Your task to perform on an android device: turn on data saver in the chrome app Image 0: 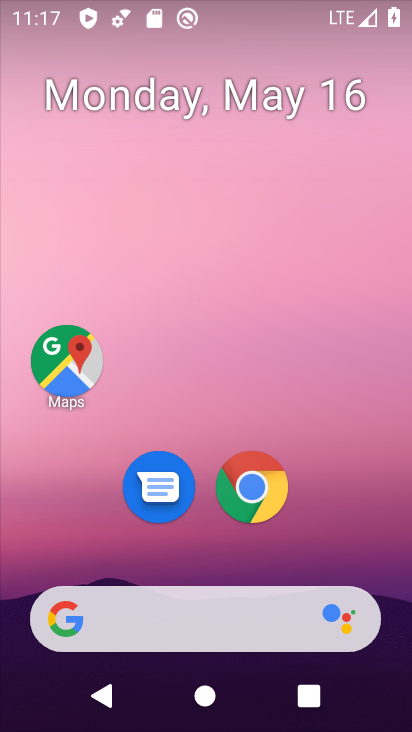
Step 0: click (251, 488)
Your task to perform on an android device: turn on data saver in the chrome app Image 1: 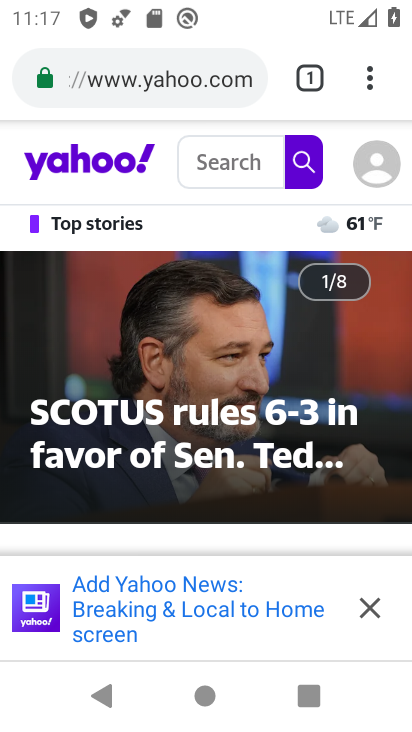
Step 1: click (373, 82)
Your task to perform on an android device: turn on data saver in the chrome app Image 2: 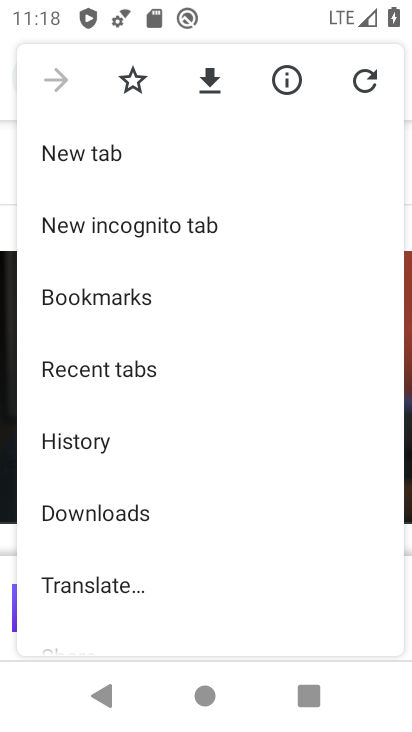
Step 2: drag from (101, 602) to (235, 122)
Your task to perform on an android device: turn on data saver in the chrome app Image 3: 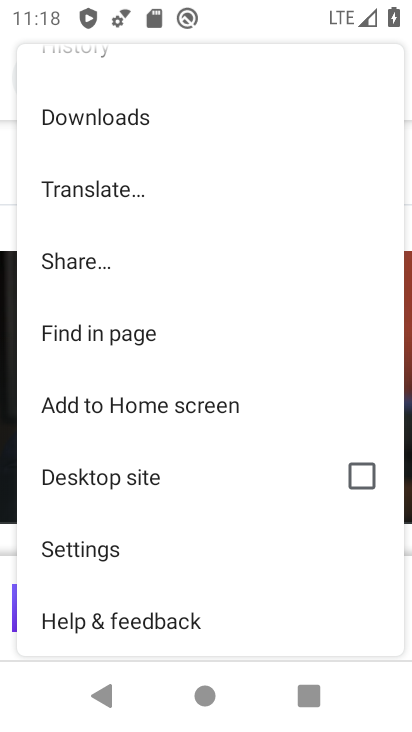
Step 3: drag from (114, 586) to (236, 195)
Your task to perform on an android device: turn on data saver in the chrome app Image 4: 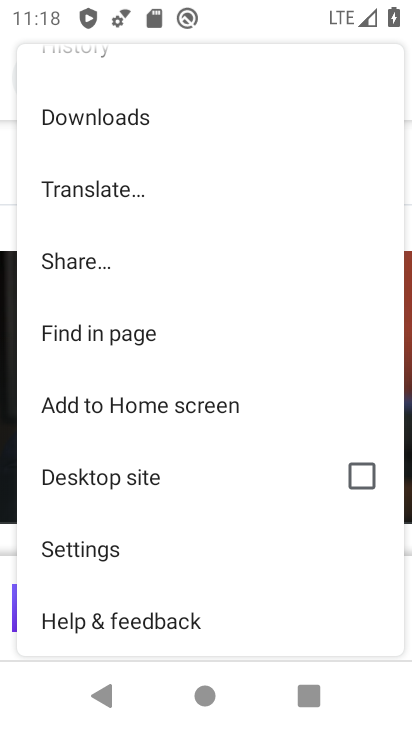
Step 4: drag from (157, 222) to (124, 499)
Your task to perform on an android device: turn on data saver in the chrome app Image 5: 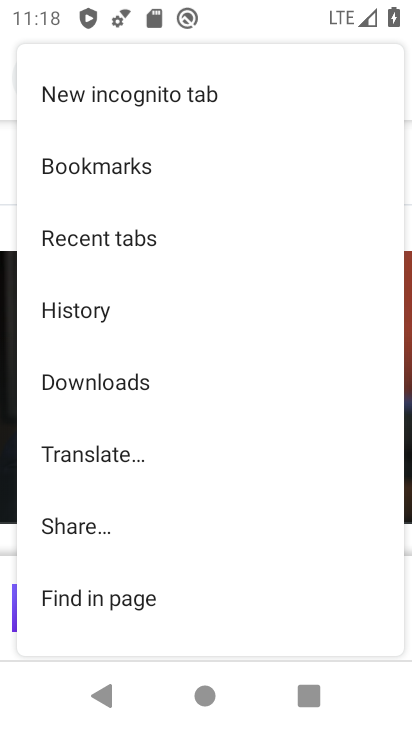
Step 5: drag from (152, 169) to (103, 488)
Your task to perform on an android device: turn on data saver in the chrome app Image 6: 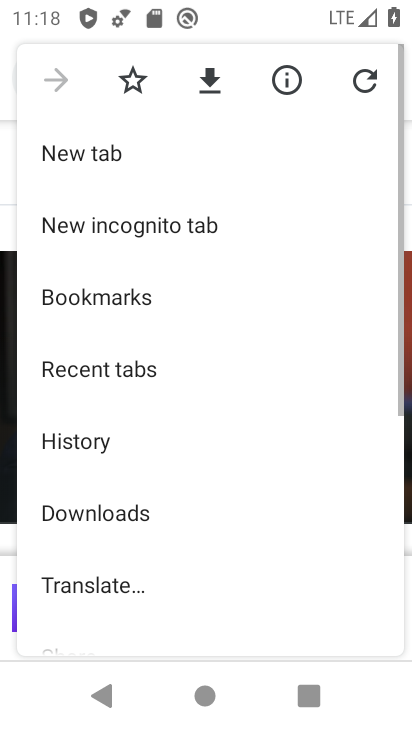
Step 6: drag from (88, 616) to (214, 218)
Your task to perform on an android device: turn on data saver in the chrome app Image 7: 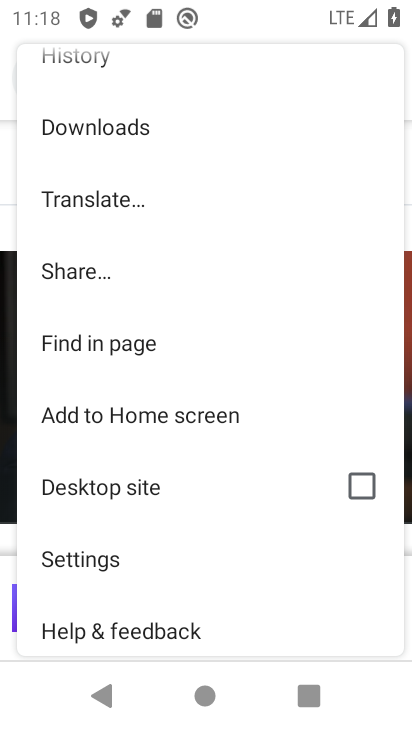
Step 7: drag from (90, 609) to (232, 105)
Your task to perform on an android device: turn on data saver in the chrome app Image 8: 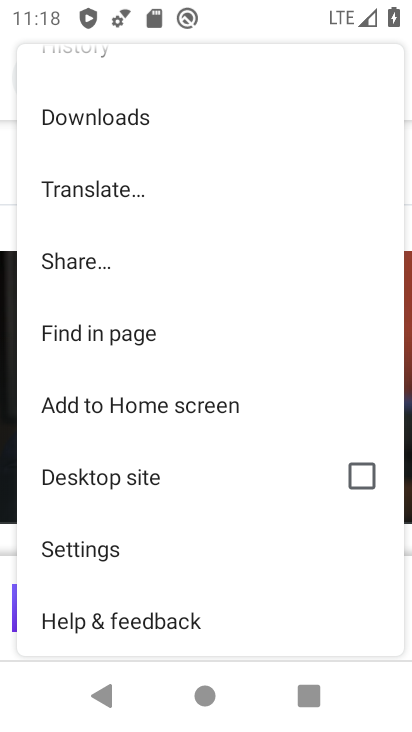
Step 8: click (90, 551)
Your task to perform on an android device: turn on data saver in the chrome app Image 9: 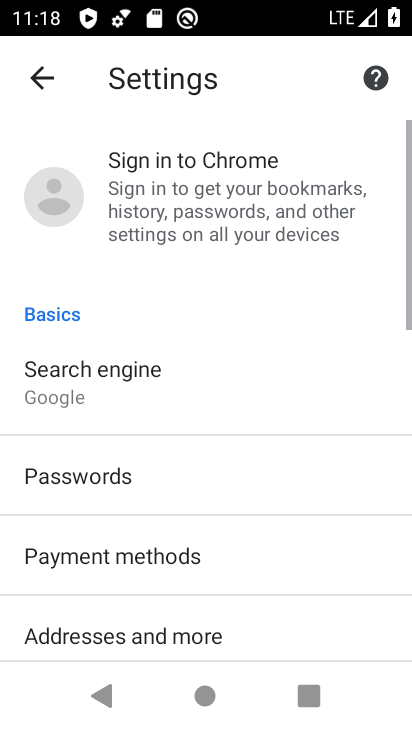
Step 9: drag from (75, 600) to (242, 182)
Your task to perform on an android device: turn on data saver in the chrome app Image 10: 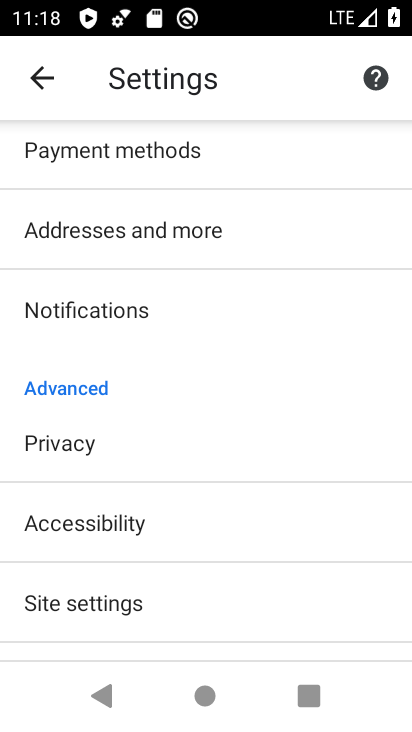
Step 10: drag from (26, 636) to (257, 198)
Your task to perform on an android device: turn on data saver in the chrome app Image 11: 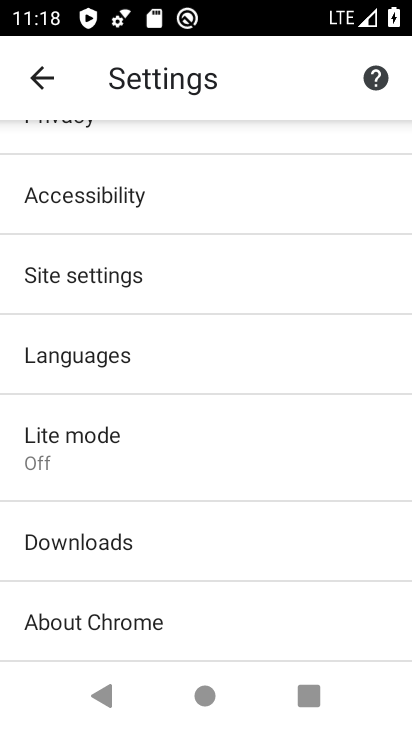
Step 11: click (75, 451)
Your task to perform on an android device: turn on data saver in the chrome app Image 12: 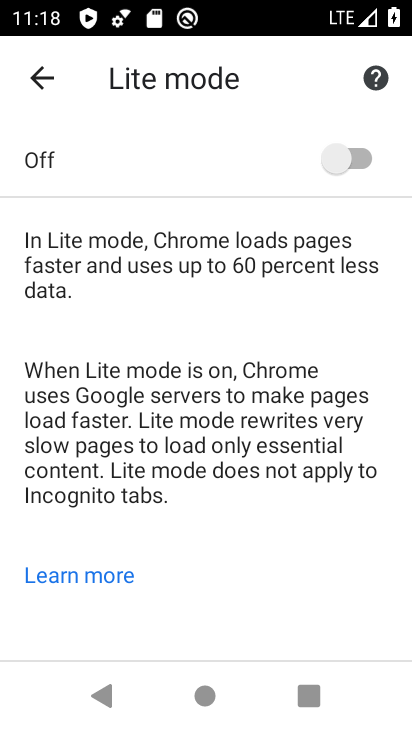
Step 12: click (329, 157)
Your task to perform on an android device: turn on data saver in the chrome app Image 13: 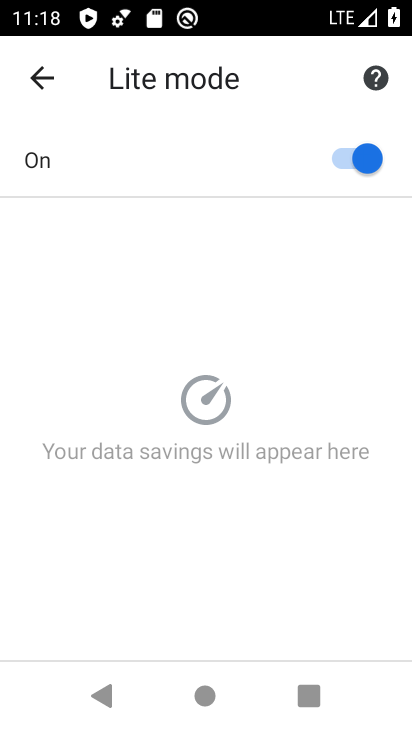
Step 13: task complete